Your task to perform on an android device: toggle notification dots Image 0: 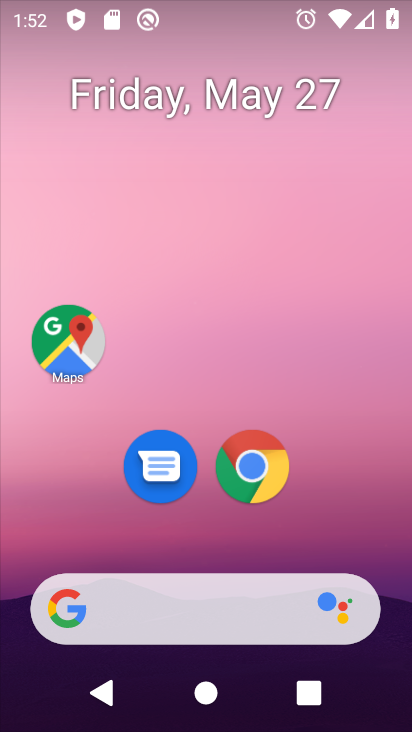
Step 0: drag from (300, 517) to (264, 60)
Your task to perform on an android device: toggle notification dots Image 1: 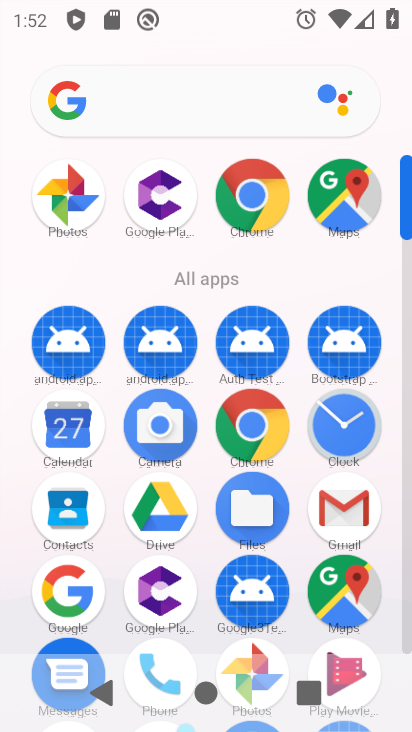
Step 1: drag from (214, 488) to (198, 128)
Your task to perform on an android device: toggle notification dots Image 2: 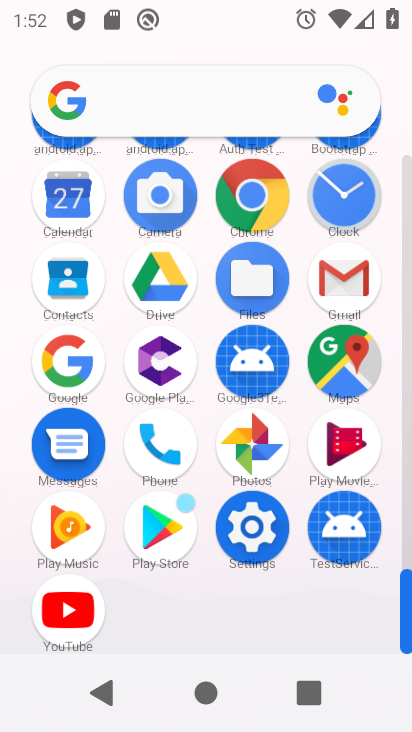
Step 2: click (255, 535)
Your task to perform on an android device: toggle notification dots Image 3: 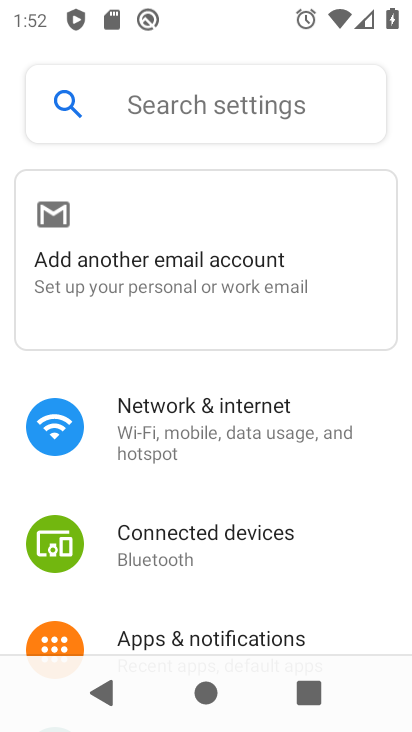
Step 3: drag from (283, 612) to (285, 275)
Your task to perform on an android device: toggle notification dots Image 4: 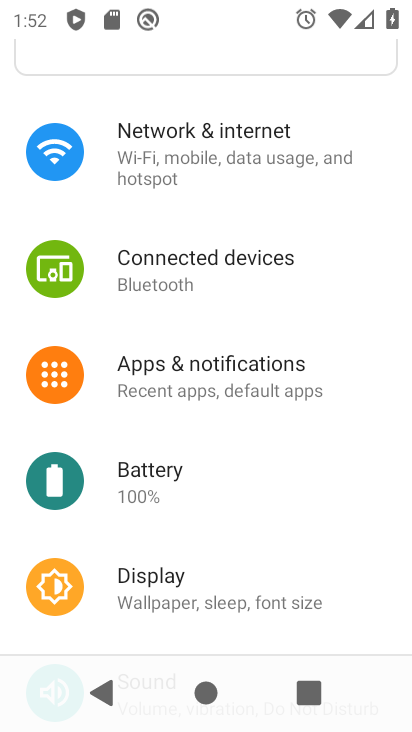
Step 4: click (224, 375)
Your task to perform on an android device: toggle notification dots Image 5: 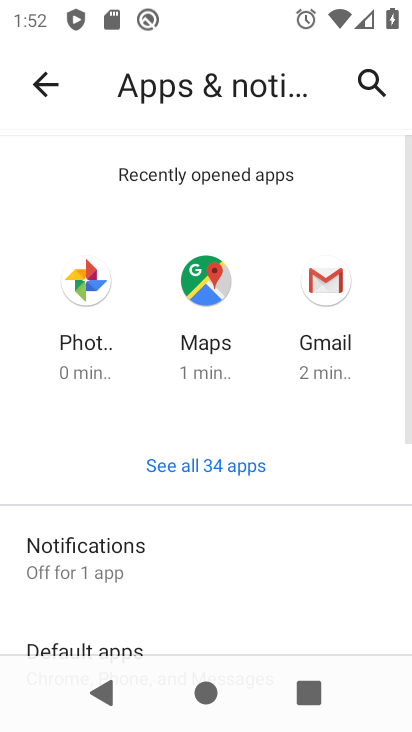
Step 5: drag from (236, 554) to (246, 230)
Your task to perform on an android device: toggle notification dots Image 6: 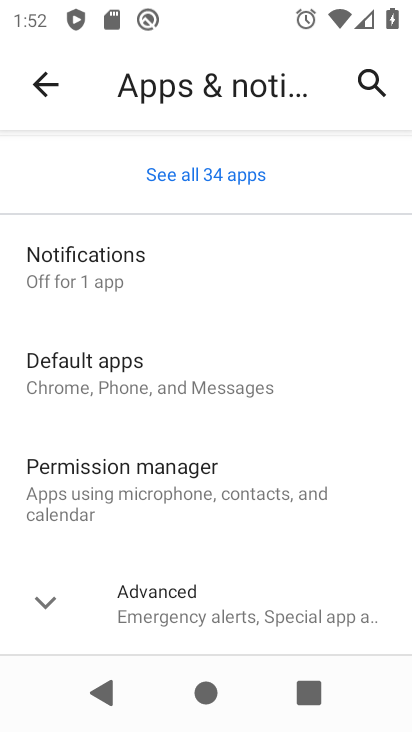
Step 6: click (79, 262)
Your task to perform on an android device: toggle notification dots Image 7: 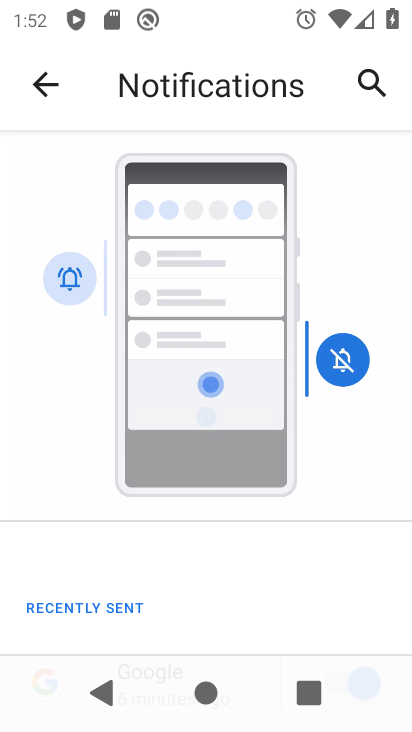
Step 7: drag from (298, 567) to (318, 186)
Your task to perform on an android device: toggle notification dots Image 8: 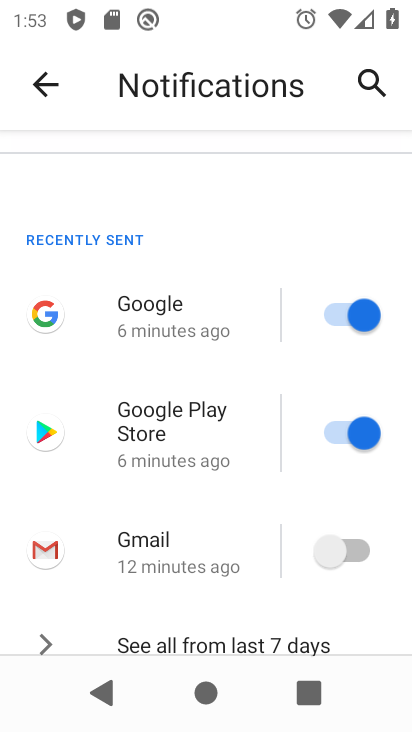
Step 8: drag from (253, 618) to (266, 209)
Your task to perform on an android device: toggle notification dots Image 9: 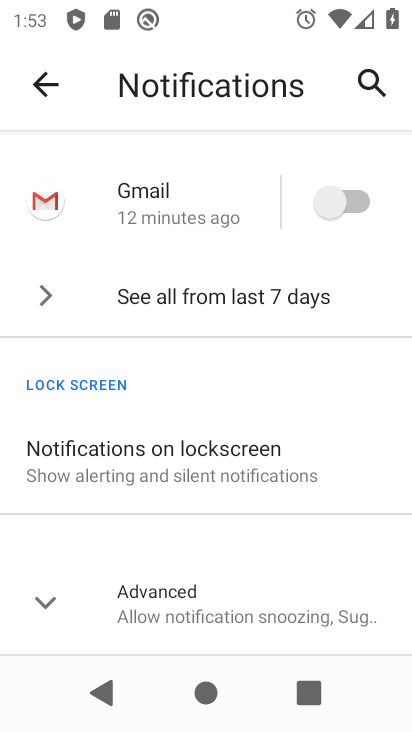
Step 9: drag from (269, 572) to (271, 277)
Your task to perform on an android device: toggle notification dots Image 10: 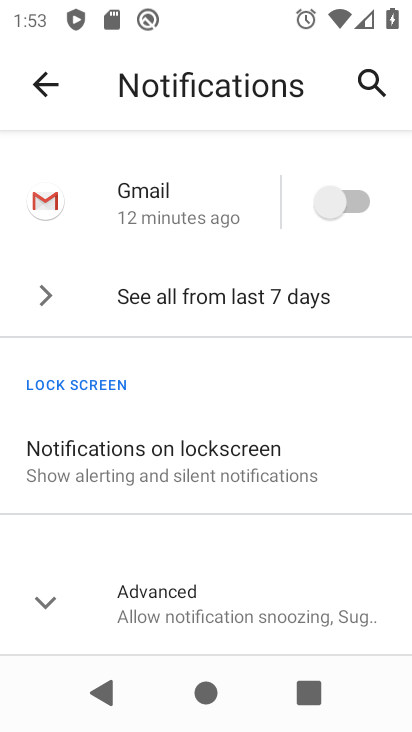
Step 10: click (177, 611)
Your task to perform on an android device: toggle notification dots Image 11: 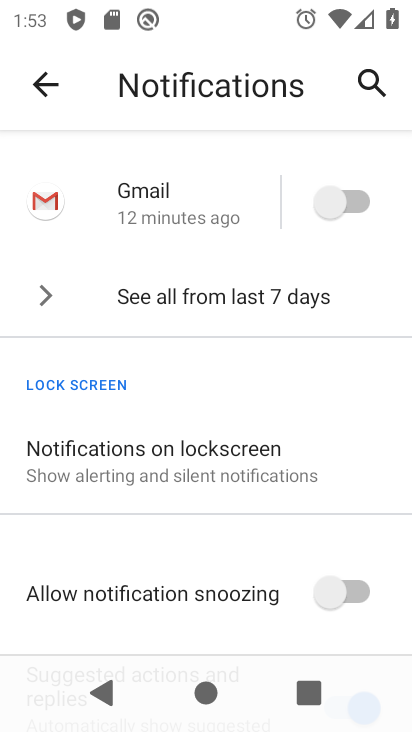
Step 11: drag from (234, 607) to (242, 247)
Your task to perform on an android device: toggle notification dots Image 12: 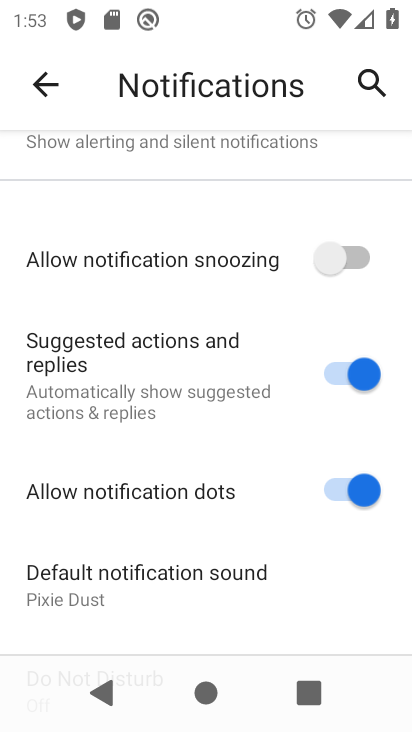
Step 12: click (342, 489)
Your task to perform on an android device: toggle notification dots Image 13: 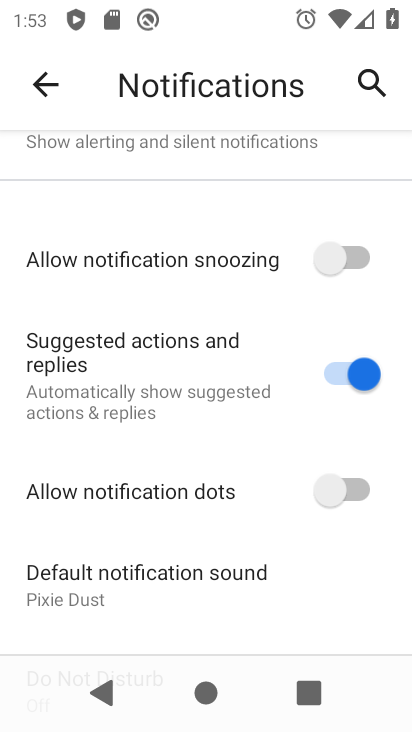
Step 13: task complete